Your task to perform on an android device: move a message to another label in the gmail app Image 0: 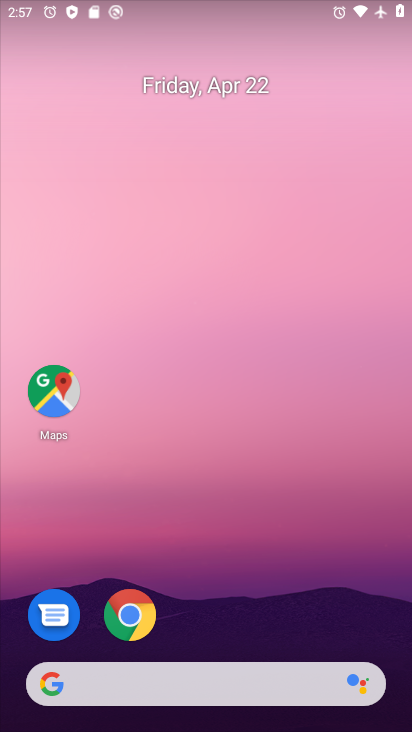
Step 0: drag from (298, 622) to (263, 164)
Your task to perform on an android device: move a message to another label in the gmail app Image 1: 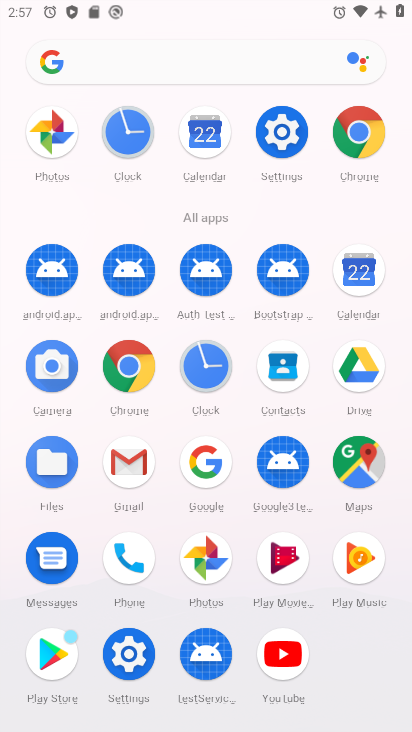
Step 1: click (130, 475)
Your task to perform on an android device: move a message to another label in the gmail app Image 2: 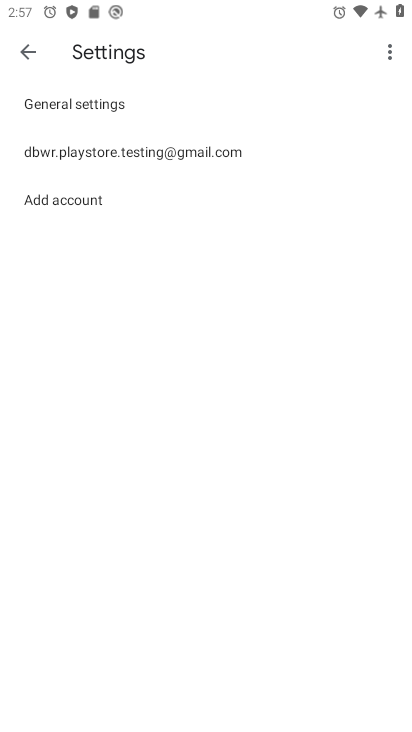
Step 2: click (38, 60)
Your task to perform on an android device: move a message to another label in the gmail app Image 3: 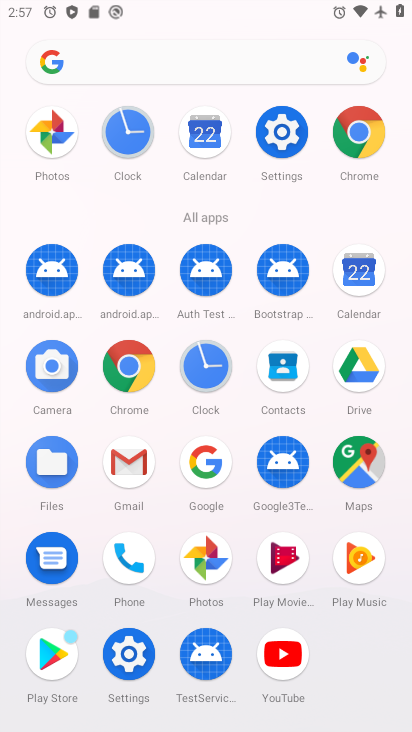
Step 3: click (144, 460)
Your task to perform on an android device: move a message to another label in the gmail app Image 4: 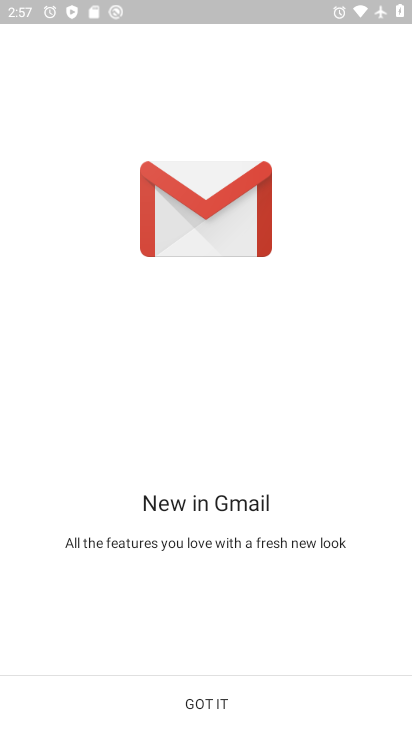
Step 4: click (189, 708)
Your task to perform on an android device: move a message to another label in the gmail app Image 5: 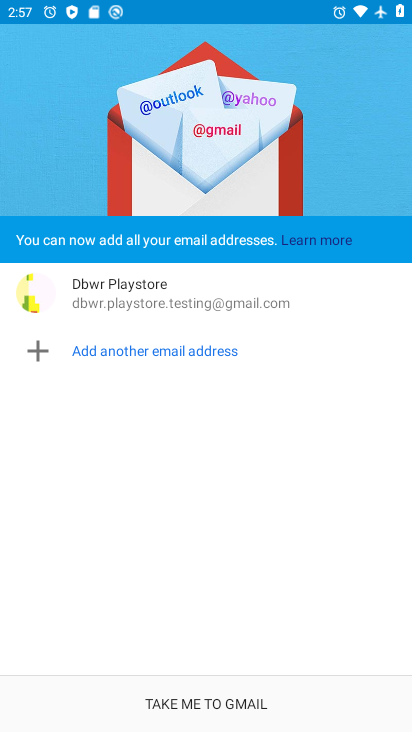
Step 5: click (189, 708)
Your task to perform on an android device: move a message to another label in the gmail app Image 6: 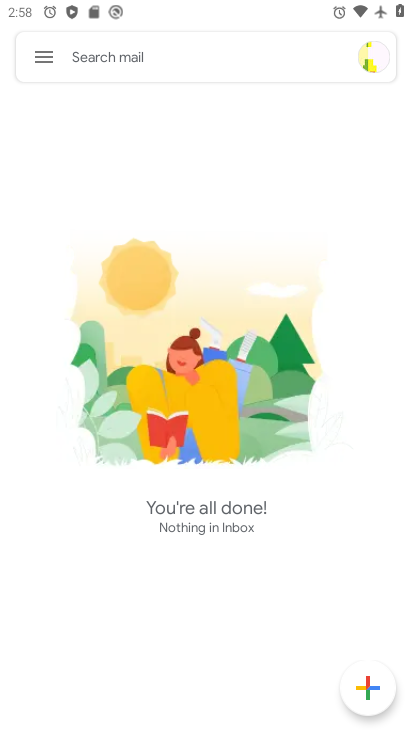
Step 6: task complete